Your task to perform on an android device: change your default location settings in chrome Image 0: 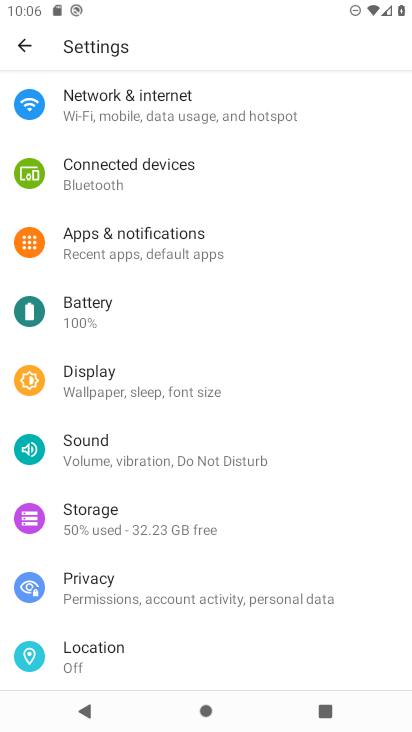
Step 0: press home button
Your task to perform on an android device: change your default location settings in chrome Image 1: 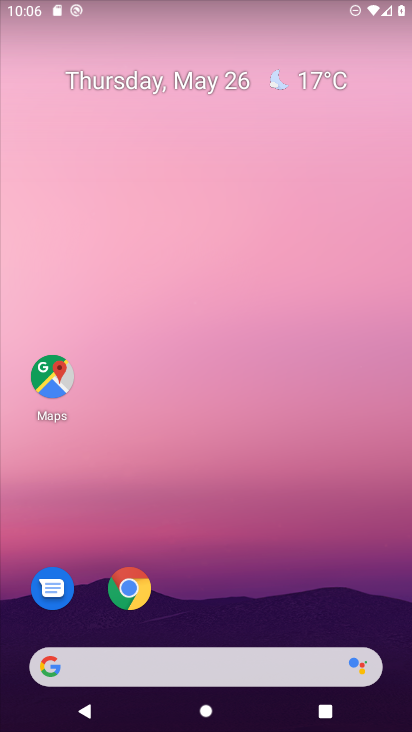
Step 1: click (132, 588)
Your task to perform on an android device: change your default location settings in chrome Image 2: 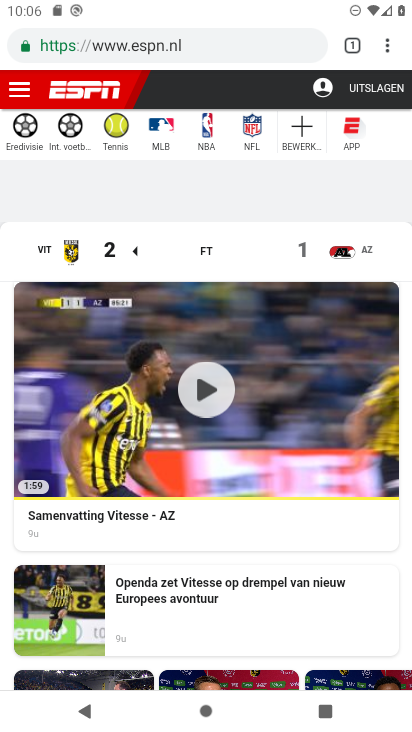
Step 2: click (394, 46)
Your task to perform on an android device: change your default location settings in chrome Image 3: 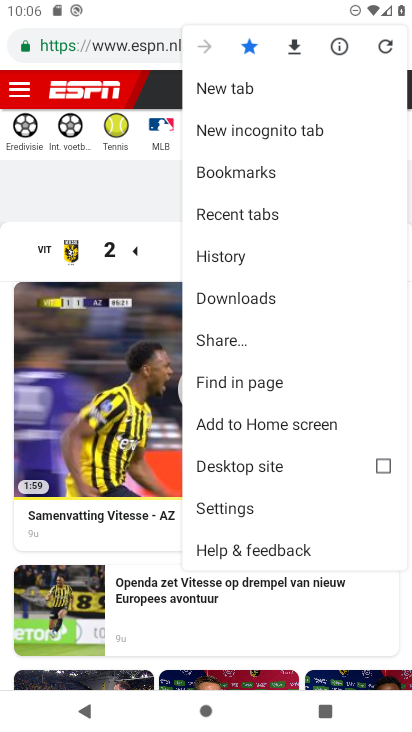
Step 3: click (246, 501)
Your task to perform on an android device: change your default location settings in chrome Image 4: 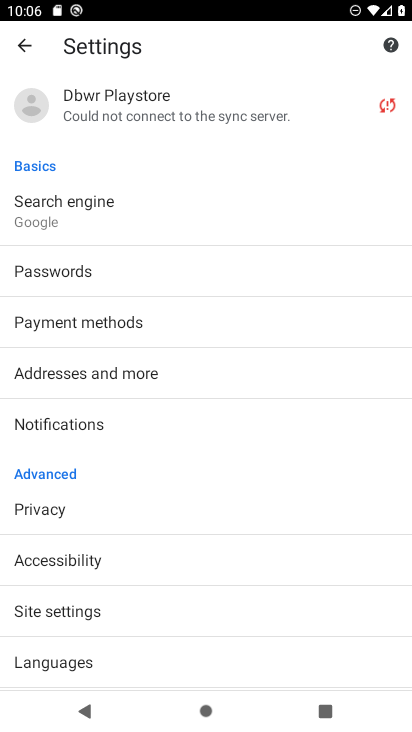
Step 4: click (64, 613)
Your task to perform on an android device: change your default location settings in chrome Image 5: 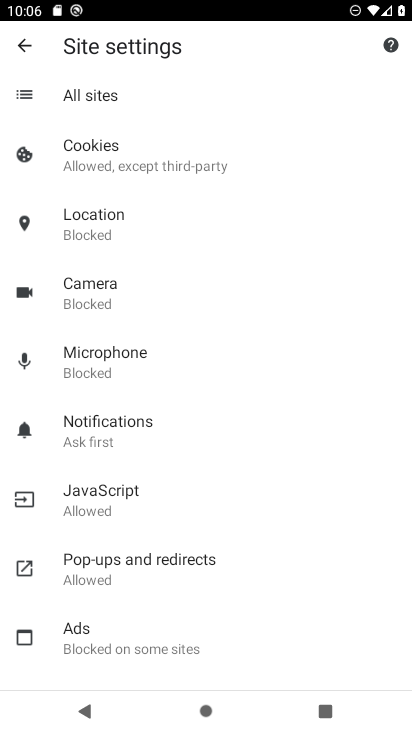
Step 5: click (85, 214)
Your task to perform on an android device: change your default location settings in chrome Image 6: 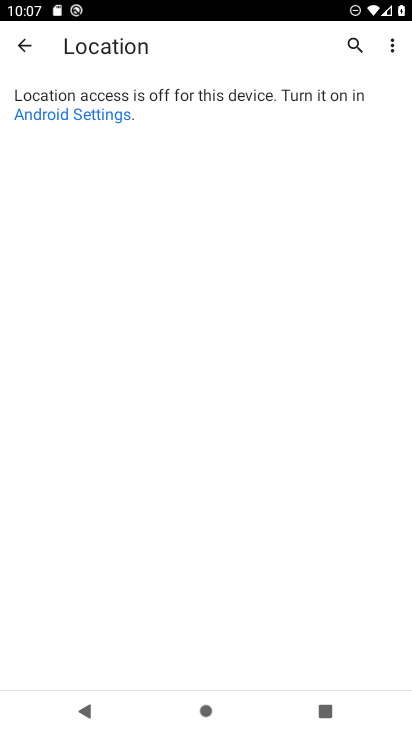
Step 6: task complete